Your task to perform on an android device: check the backup settings in the google photos Image 0: 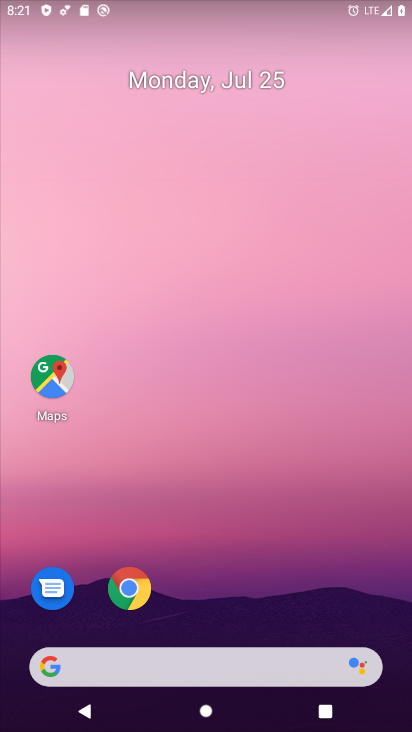
Step 0: press home button
Your task to perform on an android device: check the backup settings in the google photos Image 1: 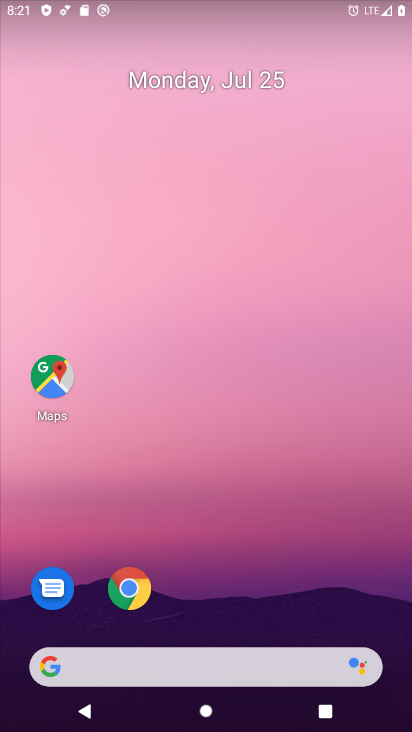
Step 1: drag from (399, 541) to (376, 174)
Your task to perform on an android device: check the backup settings in the google photos Image 2: 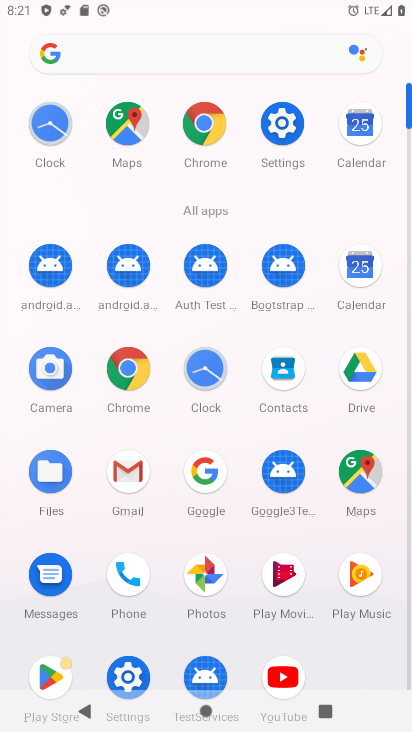
Step 2: click (199, 579)
Your task to perform on an android device: check the backup settings in the google photos Image 3: 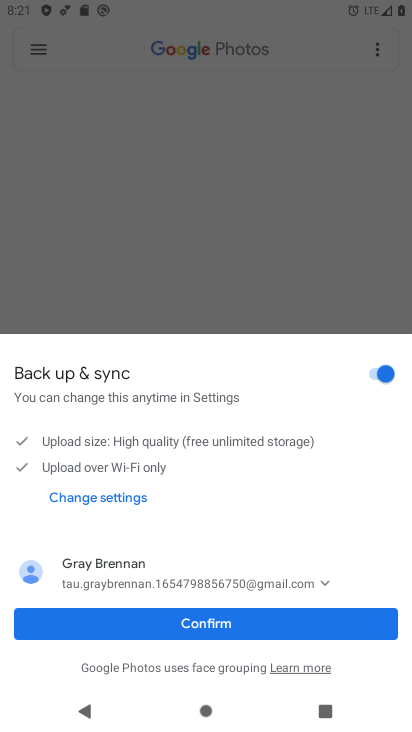
Step 3: click (219, 623)
Your task to perform on an android device: check the backup settings in the google photos Image 4: 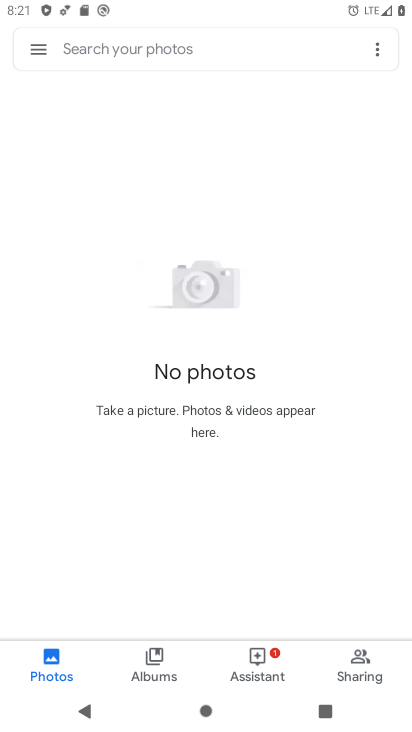
Step 4: click (40, 49)
Your task to perform on an android device: check the backup settings in the google photos Image 5: 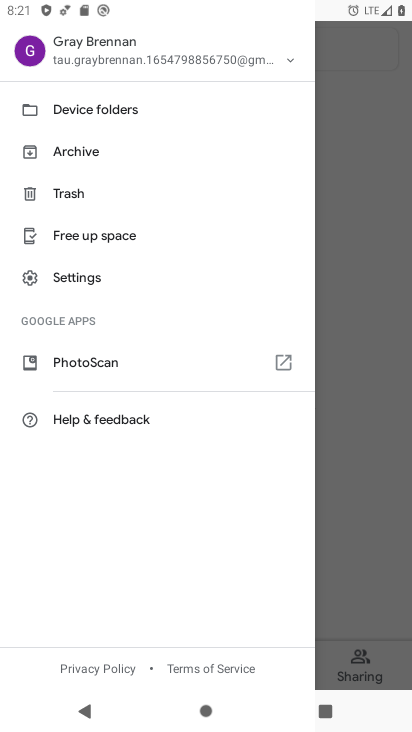
Step 5: click (94, 276)
Your task to perform on an android device: check the backup settings in the google photos Image 6: 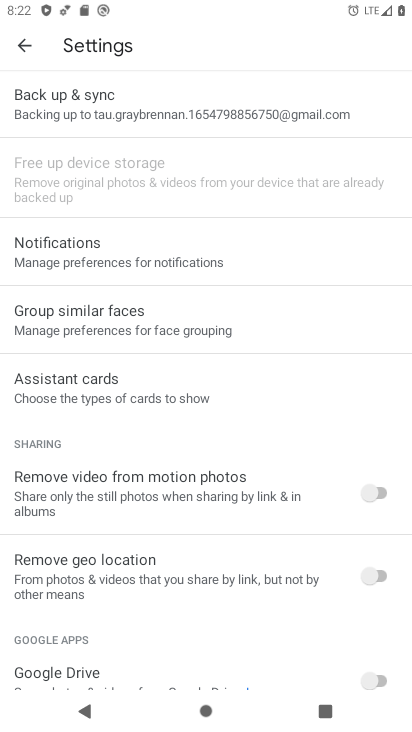
Step 6: click (160, 109)
Your task to perform on an android device: check the backup settings in the google photos Image 7: 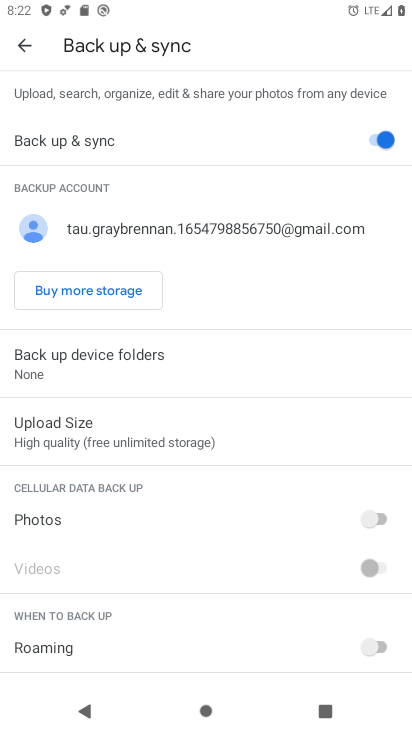
Step 7: task complete